Your task to perform on an android device: set the timer Image 0: 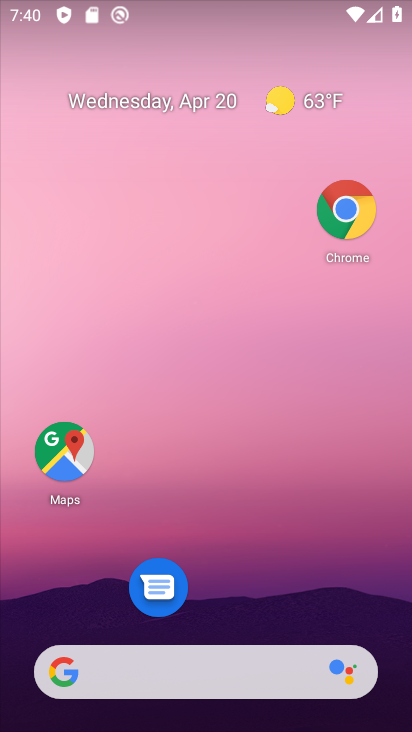
Step 0: drag from (289, 627) to (223, 6)
Your task to perform on an android device: set the timer Image 1: 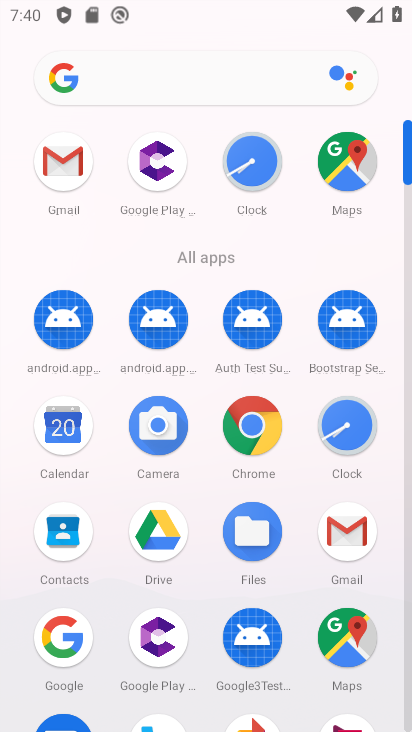
Step 1: click (260, 159)
Your task to perform on an android device: set the timer Image 2: 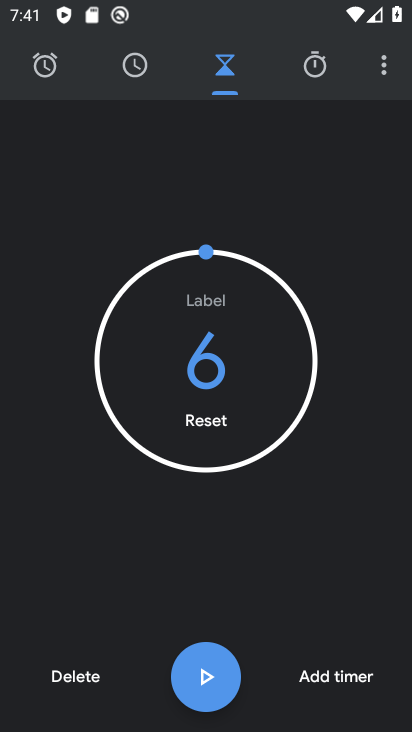
Step 2: click (217, 433)
Your task to perform on an android device: set the timer Image 3: 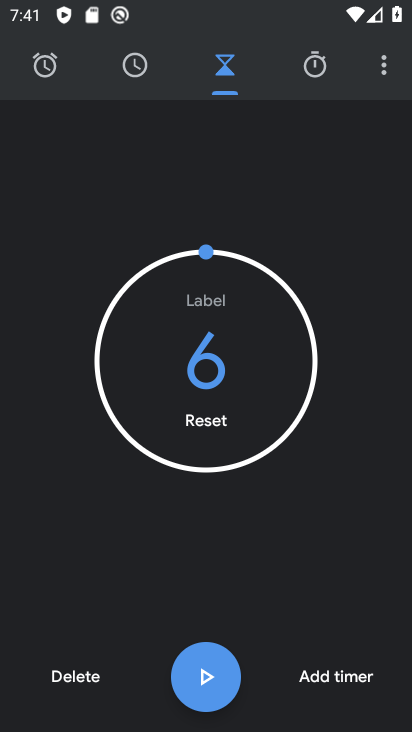
Step 3: click (221, 681)
Your task to perform on an android device: set the timer Image 4: 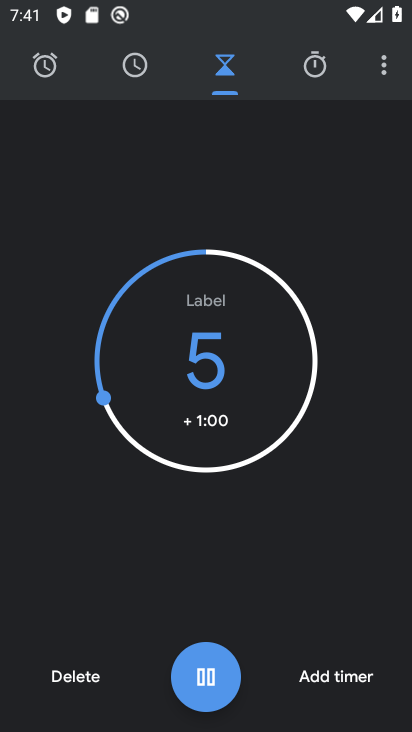
Step 4: task complete